Your task to perform on an android device: Go to Google maps Image 0: 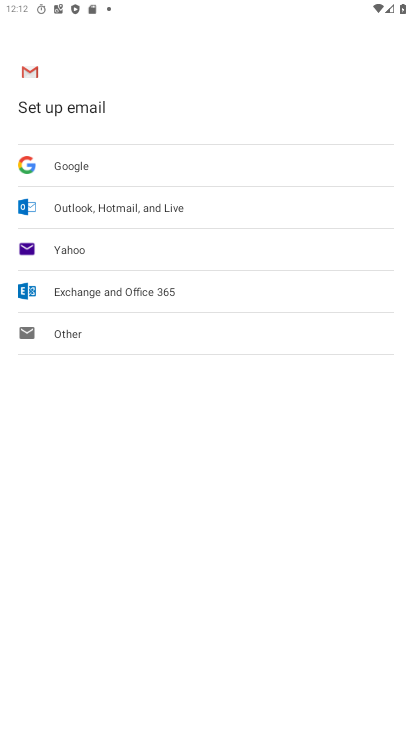
Step 0: press home button
Your task to perform on an android device: Go to Google maps Image 1: 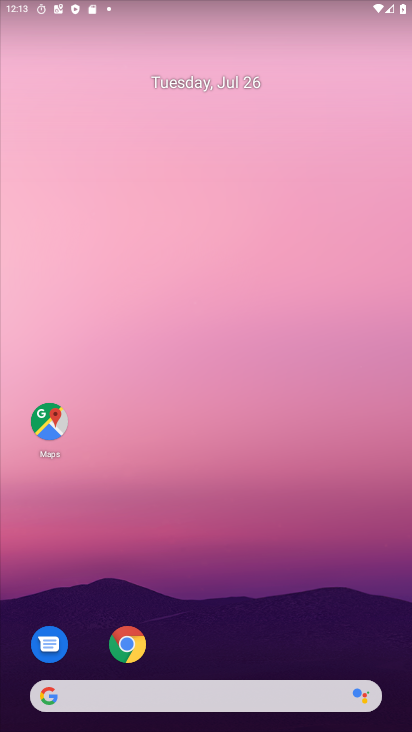
Step 1: drag from (230, 550) to (250, 0)
Your task to perform on an android device: Go to Google maps Image 2: 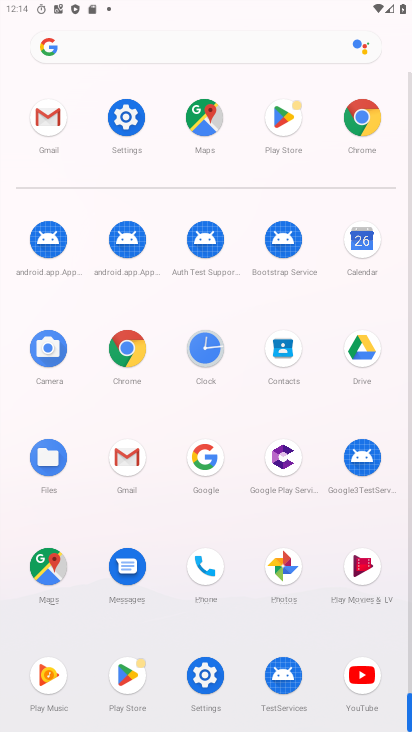
Step 2: click (48, 585)
Your task to perform on an android device: Go to Google maps Image 3: 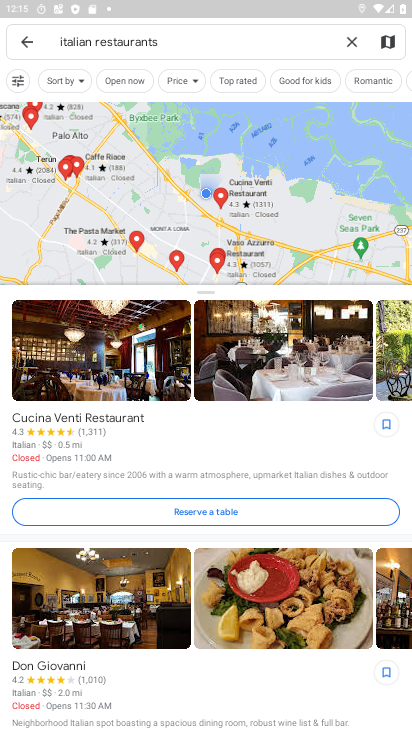
Step 3: task complete